Your task to perform on an android device: open a bookmark in the chrome app Image 0: 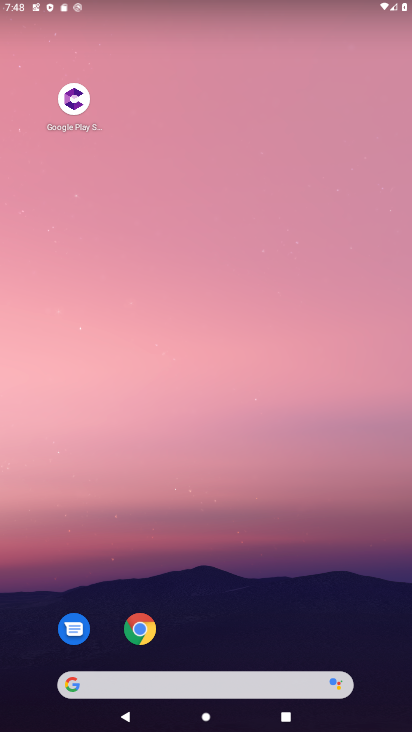
Step 0: click (145, 619)
Your task to perform on an android device: open a bookmark in the chrome app Image 1: 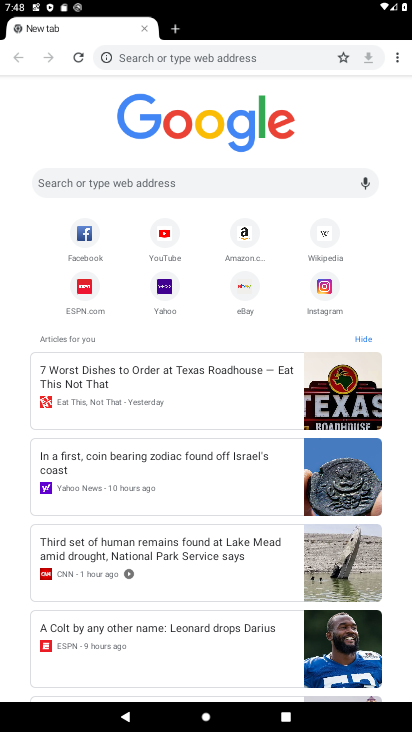
Step 1: click (392, 57)
Your task to perform on an android device: open a bookmark in the chrome app Image 2: 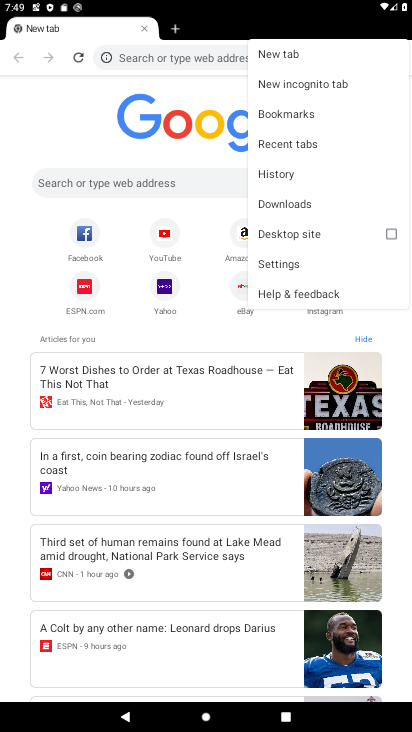
Step 2: click (308, 111)
Your task to perform on an android device: open a bookmark in the chrome app Image 3: 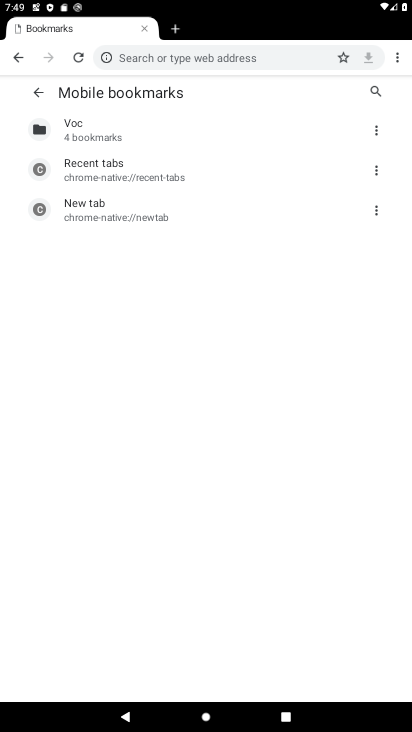
Step 3: click (66, 162)
Your task to perform on an android device: open a bookmark in the chrome app Image 4: 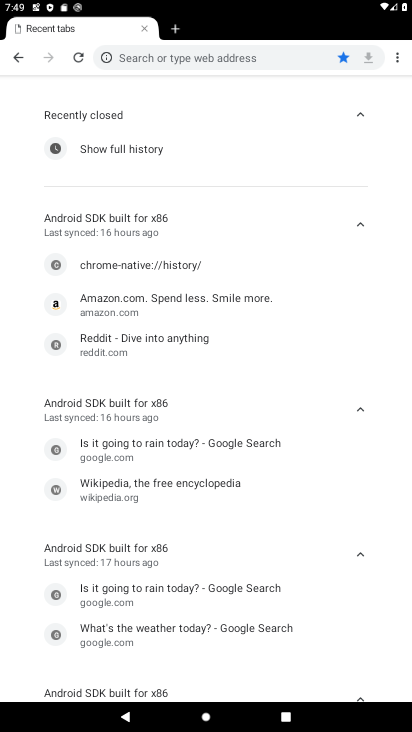
Step 4: task complete